Your task to perform on an android device: toggle priority inbox in the gmail app Image 0: 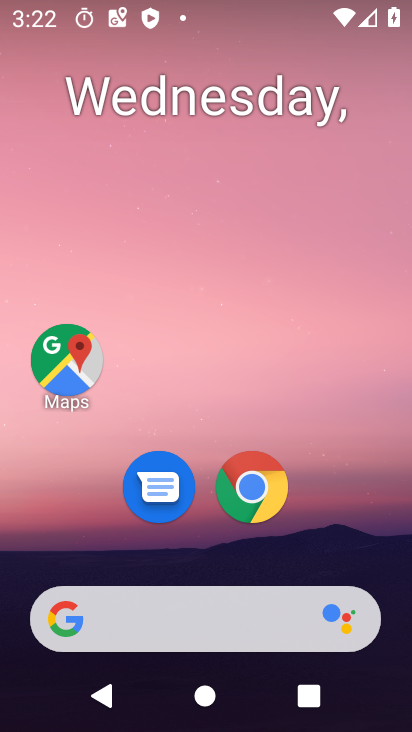
Step 0: drag from (220, 595) to (169, 192)
Your task to perform on an android device: toggle priority inbox in the gmail app Image 1: 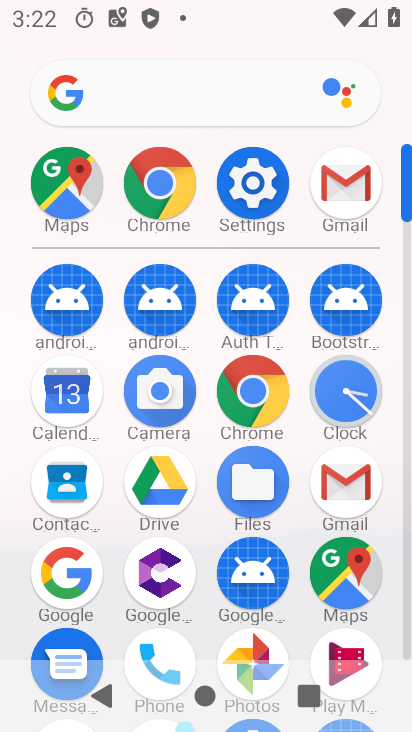
Step 1: click (364, 501)
Your task to perform on an android device: toggle priority inbox in the gmail app Image 2: 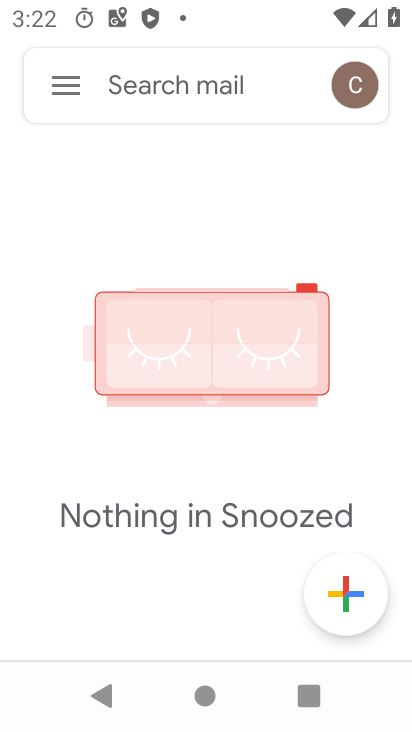
Step 2: click (60, 99)
Your task to perform on an android device: toggle priority inbox in the gmail app Image 3: 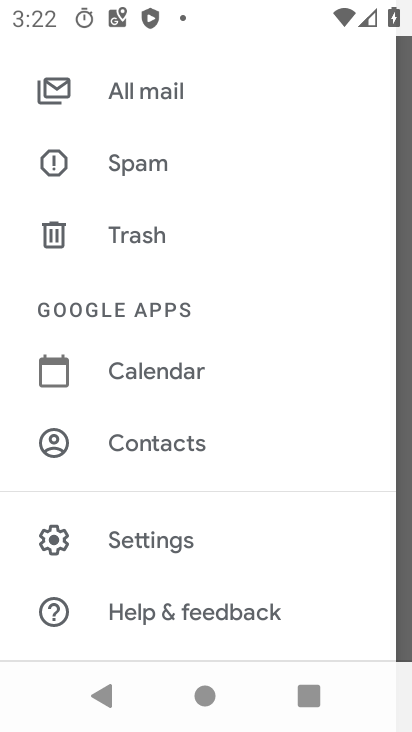
Step 3: click (145, 559)
Your task to perform on an android device: toggle priority inbox in the gmail app Image 4: 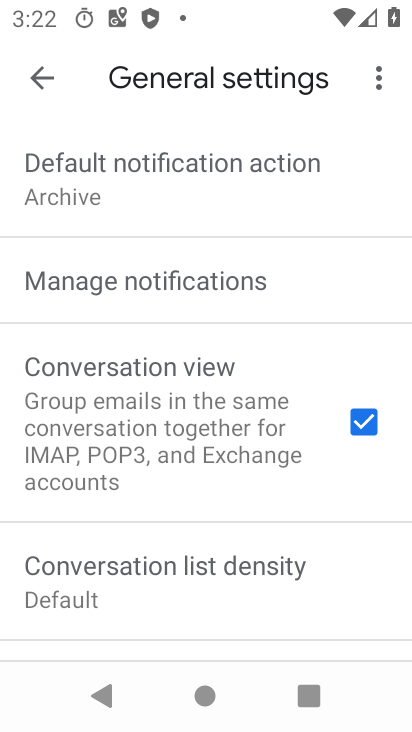
Step 4: click (43, 95)
Your task to perform on an android device: toggle priority inbox in the gmail app Image 5: 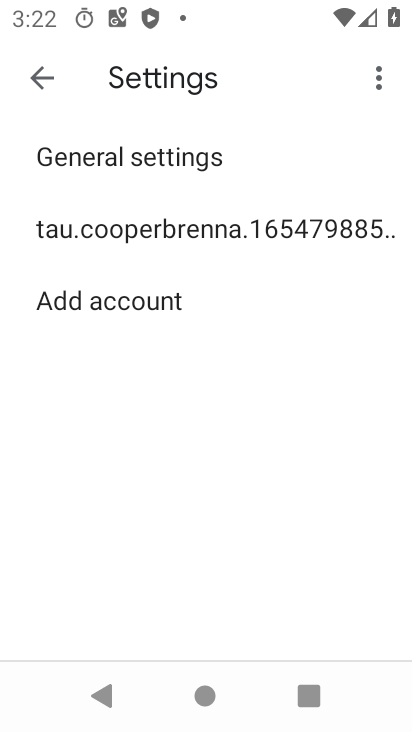
Step 5: click (126, 236)
Your task to perform on an android device: toggle priority inbox in the gmail app Image 6: 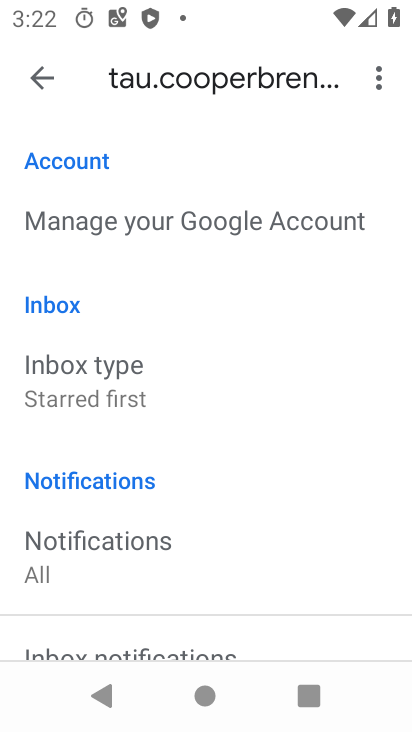
Step 6: click (139, 402)
Your task to perform on an android device: toggle priority inbox in the gmail app Image 7: 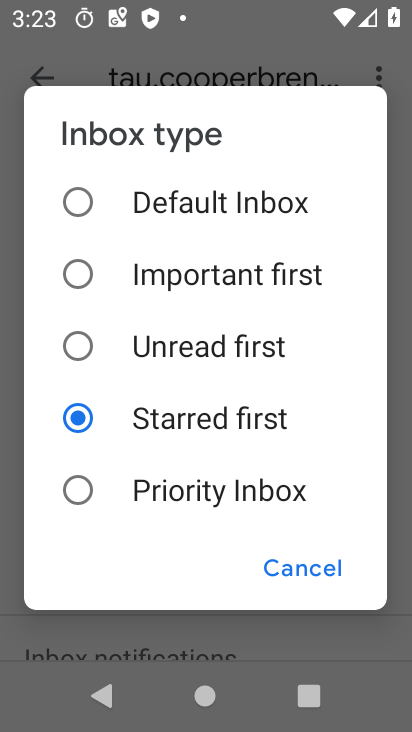
Step 7: task complete